Your task to perform on an android device: change text size in settings app Image 0: 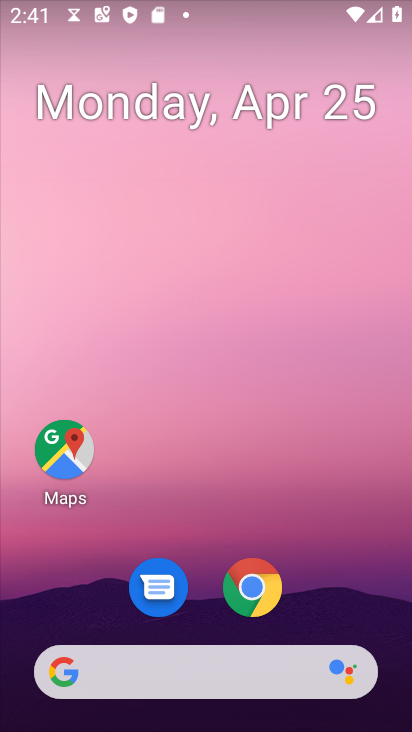
Step 0: drag from (227, 525) to (268, 156)
Your task to perform on an android device: change text size in settings app Image 1: 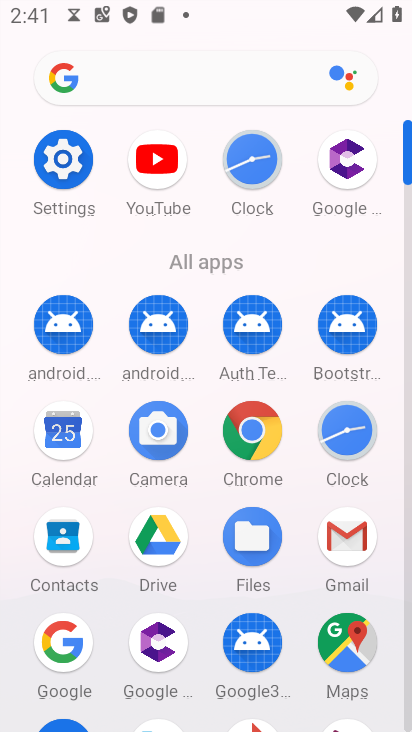
Step 1: click (72, 172)
Your task to perform on an android device: change text size in settings app Image 2: 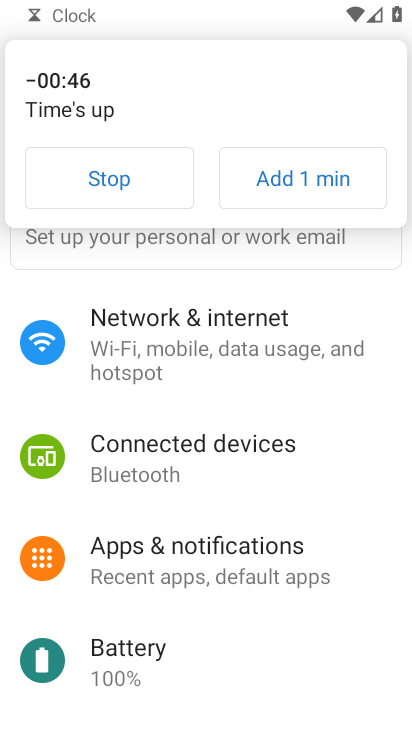
Step 2: drag from (208, 612) to (275, 288)
Your task to perform on an android device: change text size in settings app Image 3: 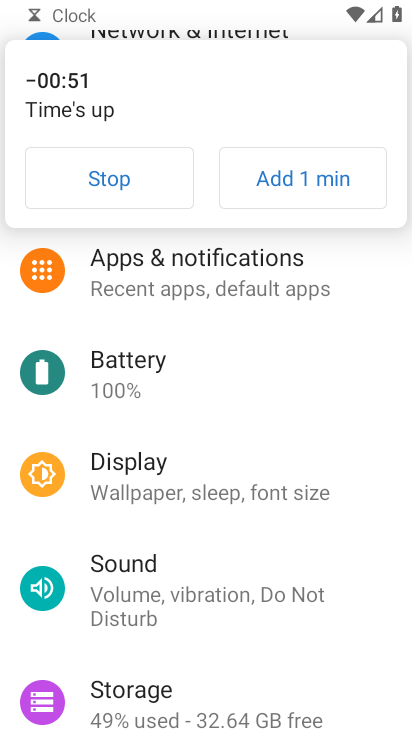
Step 3: click (101, 184)
Your task to perform on an android device: change text size in settings app Image 4: 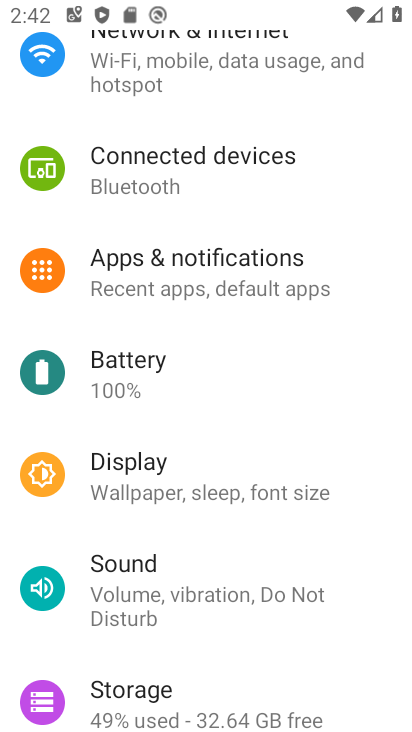
Step 4: drag from (145, 467) to (159, 317)
Your task to perform on an android device: change text size in settings app Image 5: 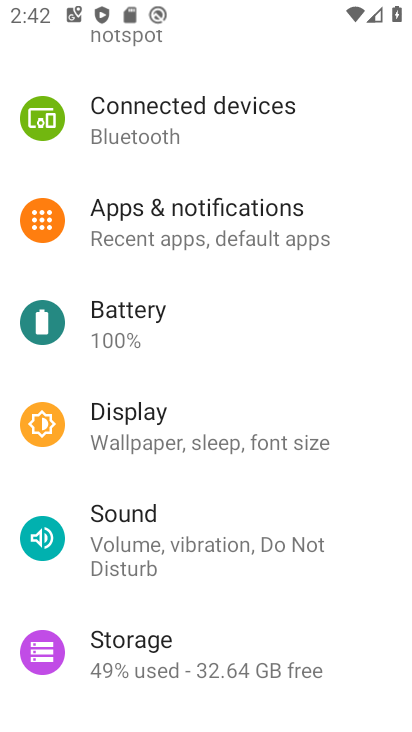
Step 5: click (127, 430)
Your task to perform on an android device: change text size in settings app Image 6: 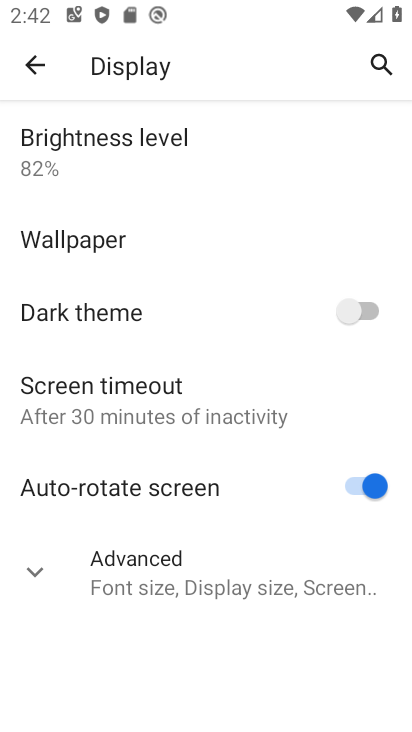
Step 6: click (241, 596)
Your task to perform on an android device: change text size in settings app Image 7: 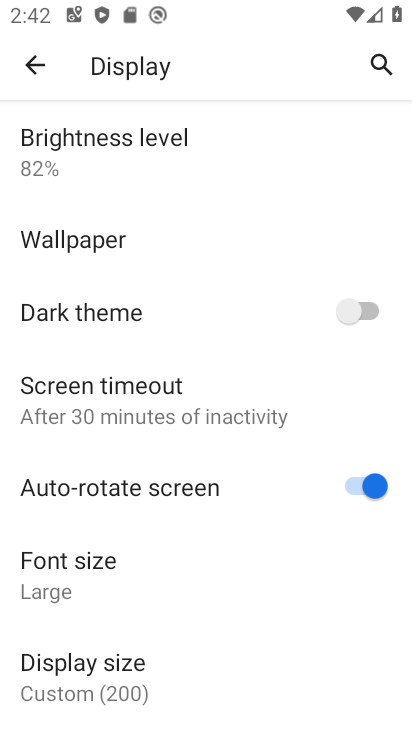
Step 7: click (158, 598)
Your task to perform on an android device: change text size in settings app Image 8: 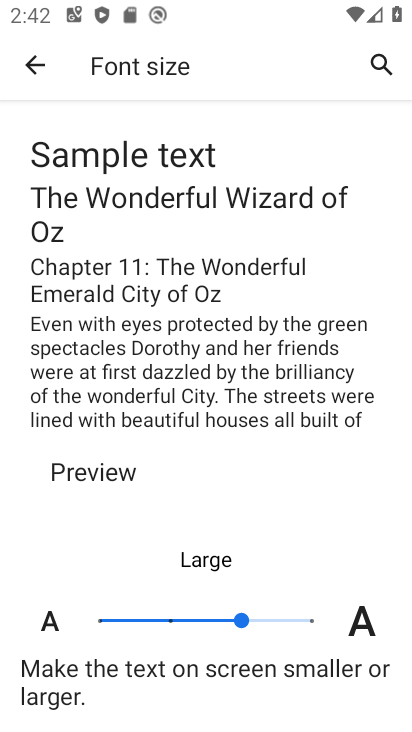
Step 8: click (175, 619)
Your task to perform on an android device: change text size in settings app Image 9: 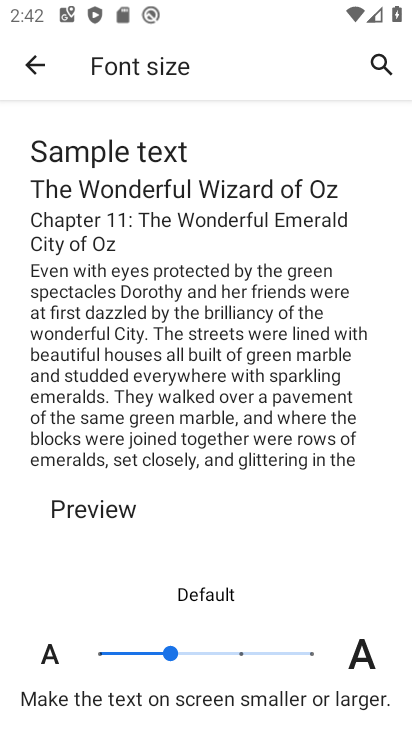
Step 9: task complete